Your task to perform on an android device: clear all cookies in the chrome app Image 0: 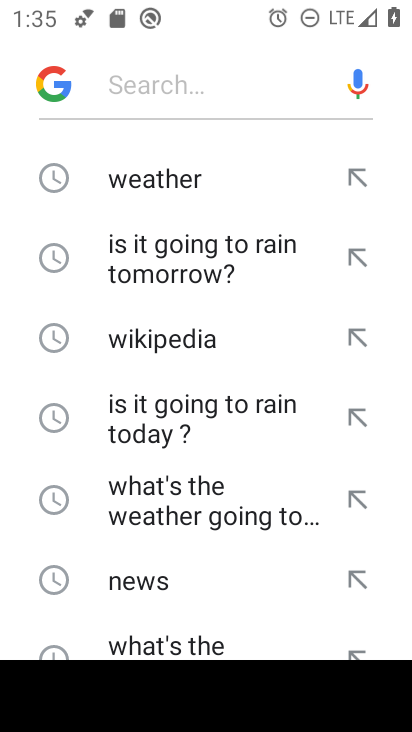
Step 0: press home button
Your task to perform on an android device: clear all cookies in the chrome app Image 1: 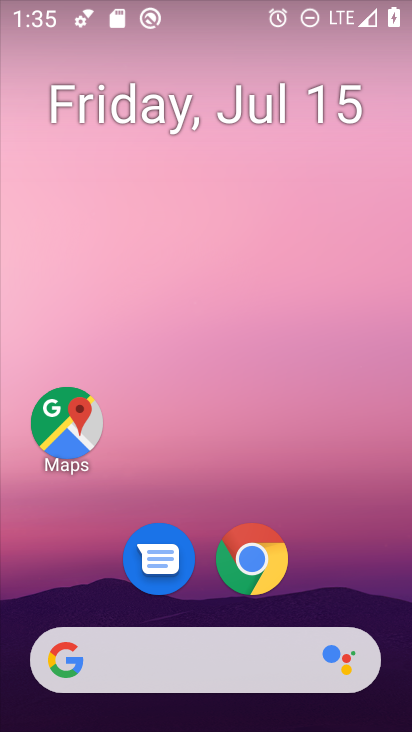
Step 1: drag from (350, 549) to (380, 98)
Your task to perform on an android device: clear all cookies in the chrome app Image 2: 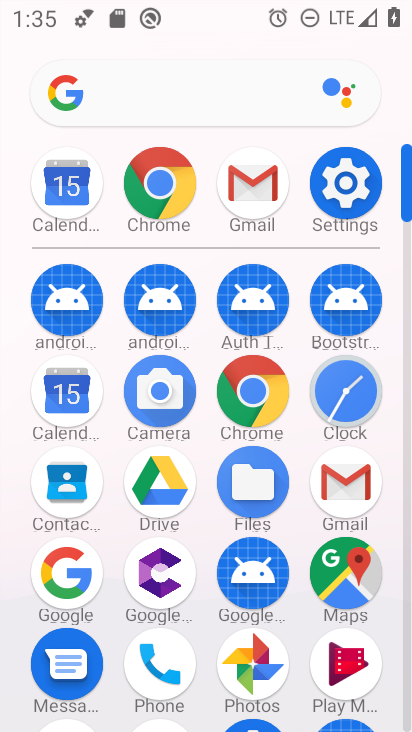
Step 2: click (265, 397)
Your task to perform on an android device: clear all cookies in the chrome app Image 3: 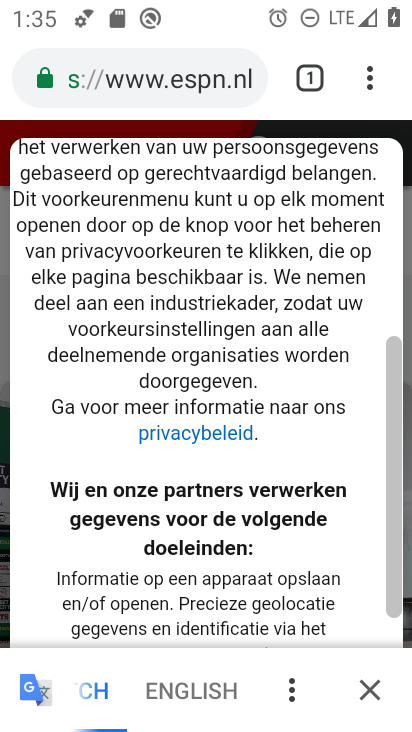
Step 3: click (370, 79)
Your task to perform on an android device: clear all cookies in the chrome app Image 4: 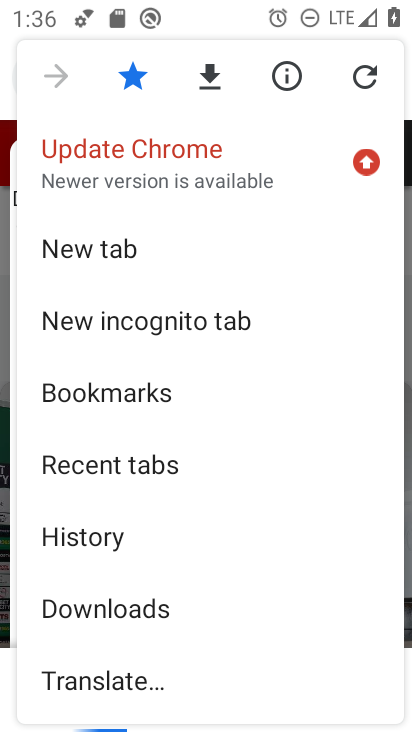
Step 4: drag from (309, 413) to (329, 330)
Your task to perform on an android device: clear all cookies in the chrome app Image 5: 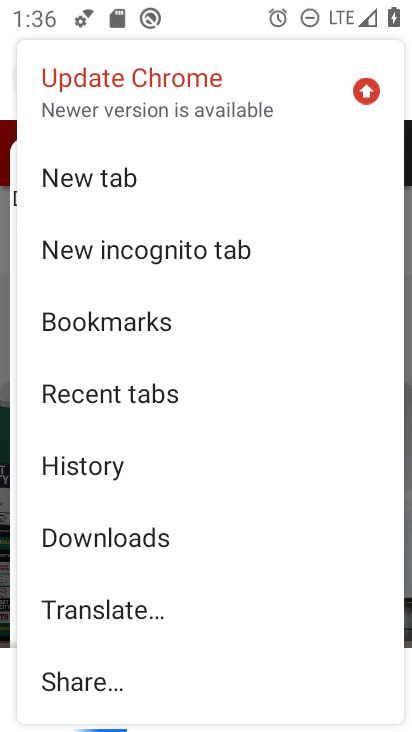
Step 5: drag from (314, 470) to (305, 387)
Your task to perform on an android device: clear all cookies in the chrome app Image 6: 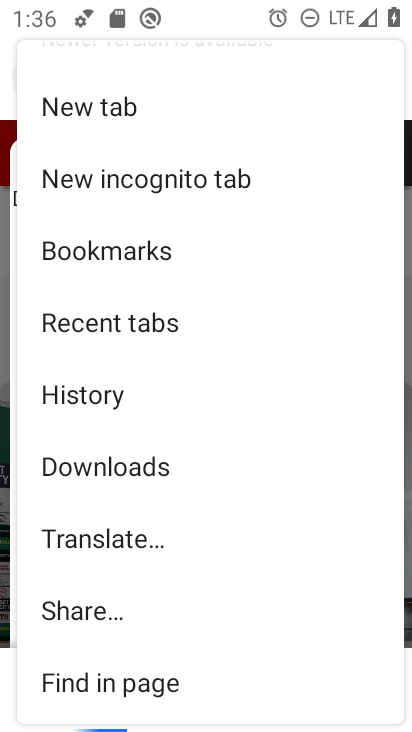
Step 6: drag from (296, 553) to (299, 336)
Your task to perform on an android device: clear all cookies in the chrome app Image 7: 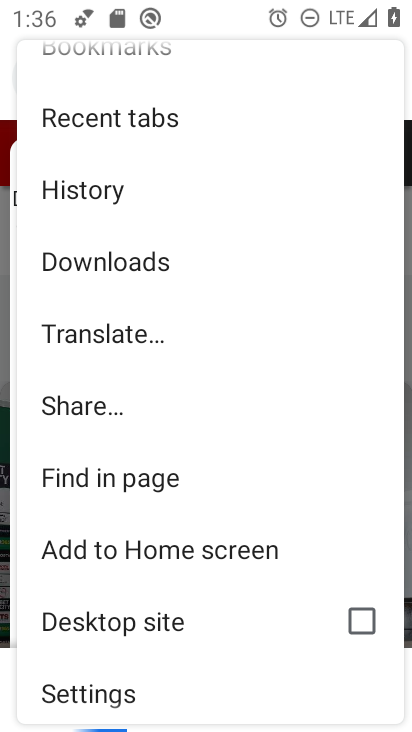
Step 7: drag from (284, 601) to (297, 413)
Your task to perform on an android device: clear all cookies in the chrome app Image 8: 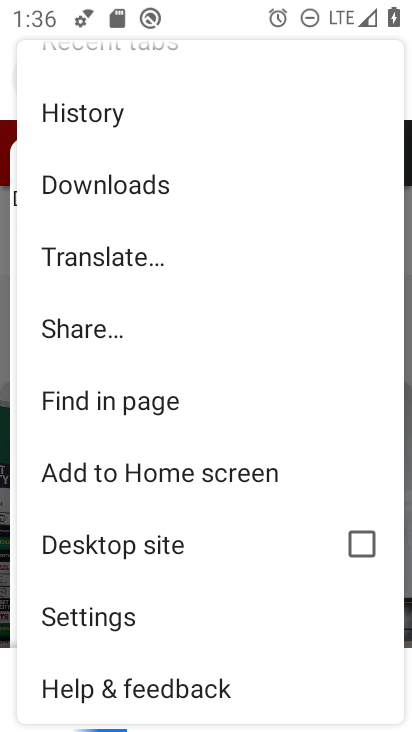
Step 8: click (207, 628)
Your task to perform on an android device: clear all cookies in the chrome app Image 9: 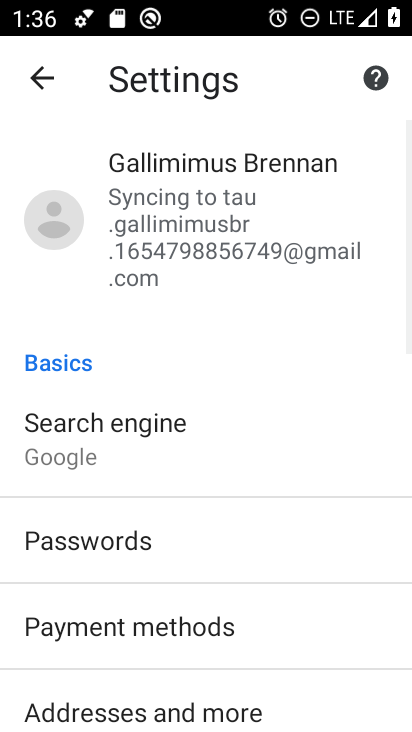
Step 9: drag from (309, 608) to (326, 410)
Your task to perform on an android device: clear all cookies in the chrome app Image 10: 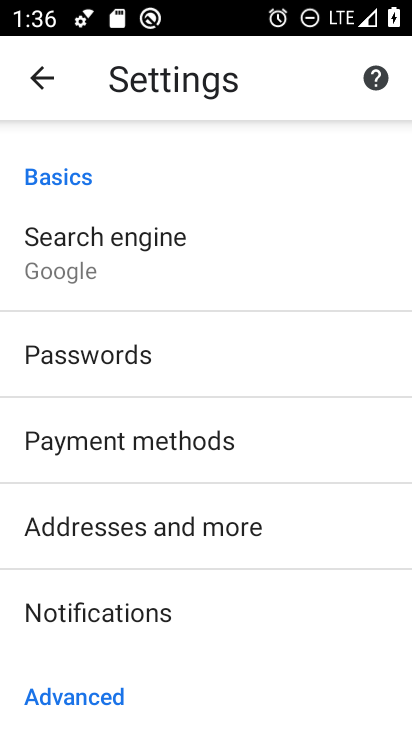
Step 10: drag from (331, 582) to (323, 451)
Your task to perform on an android device: clear all cookies in the chrome app Image 11: 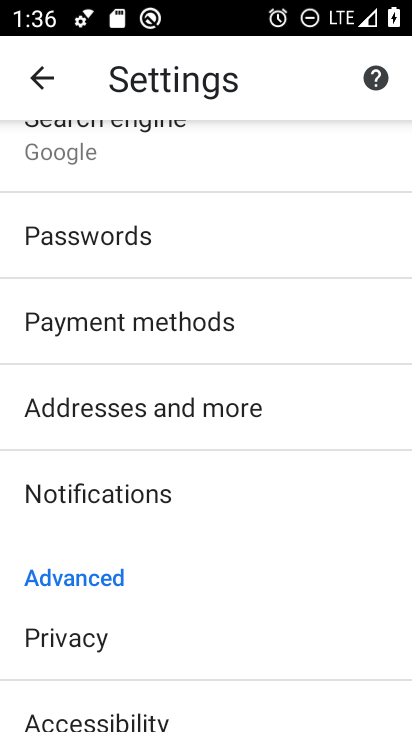
Step 11: drag from (305, 524) to (304, 408)
Your task to perform on an android device: clear all cookies in the chrome app Image 12: 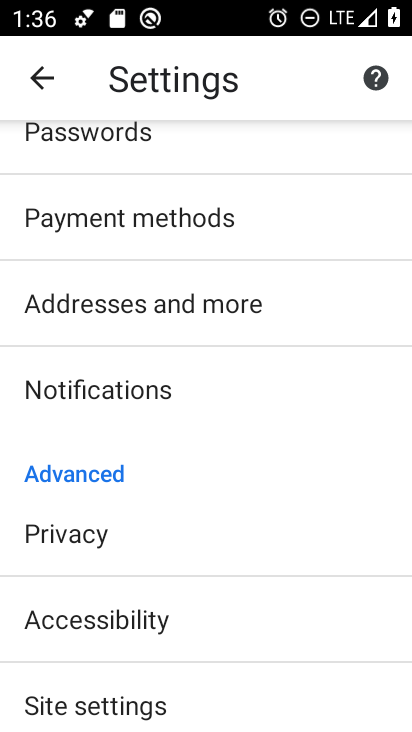
Step 12: drag from (321, 501) to (328, 417)
Your task to perform on an android device: clear all cookies in the chrome app Image 13: 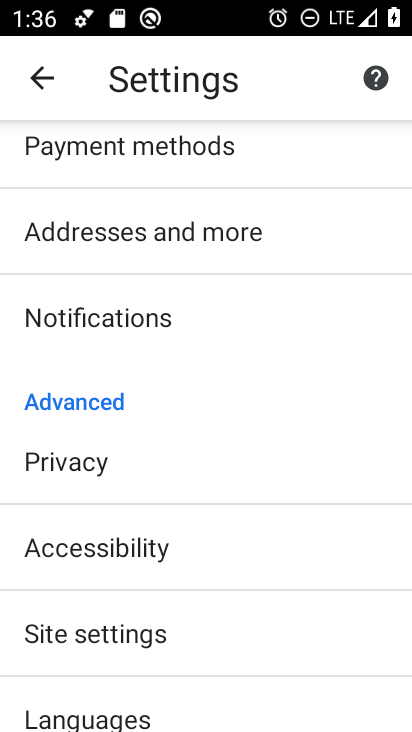
Step 13: drag from (319, 536) to (314, 412)
Your task to perform on an android device: clear all cookies in the chrome app Image 14: 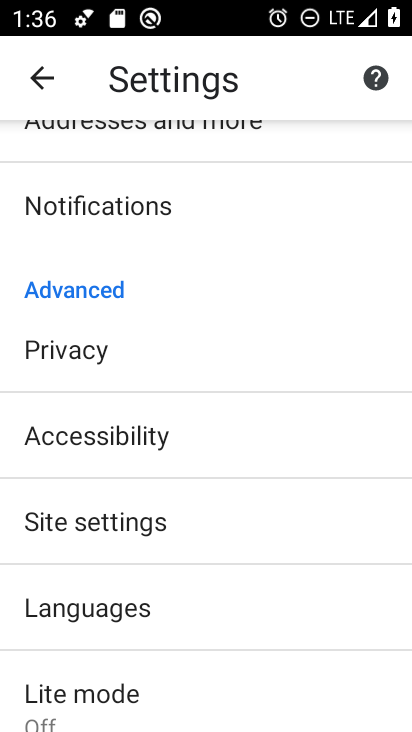
Step 14: click (220, 358)
Your task to perform on an android device: clear all cookies in the chrome app Image 15: 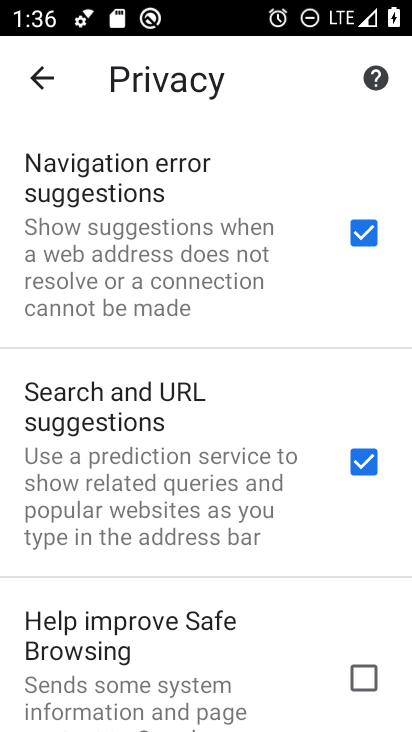
Step 15: drag from (262, 522) to (275, 430)
Your task to perform on an android device: clear all cookies in the chrome app Image 16: 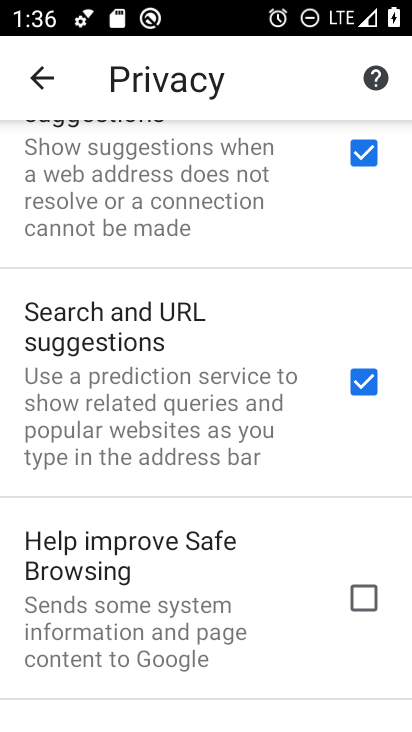
Step 16: drag from (287, 529) to (296, 442)
Your task to perform on an android device: clear all cookies in the chrome app Image 17: 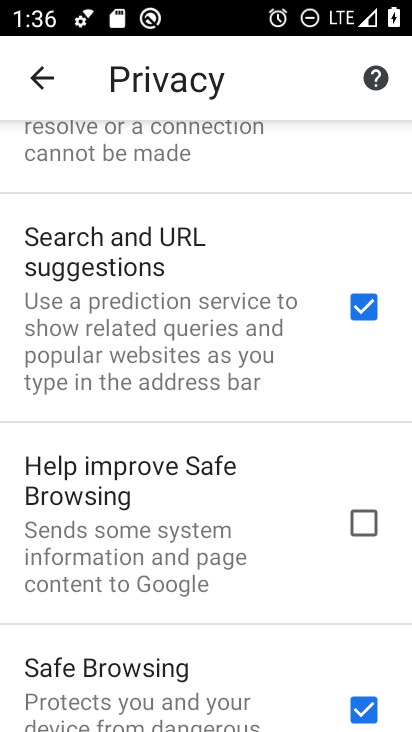
Step 17: drag from (285, 558) to (290, 452)
Your task to perform on an android device: clear all cookies in the chrome app Image 18: 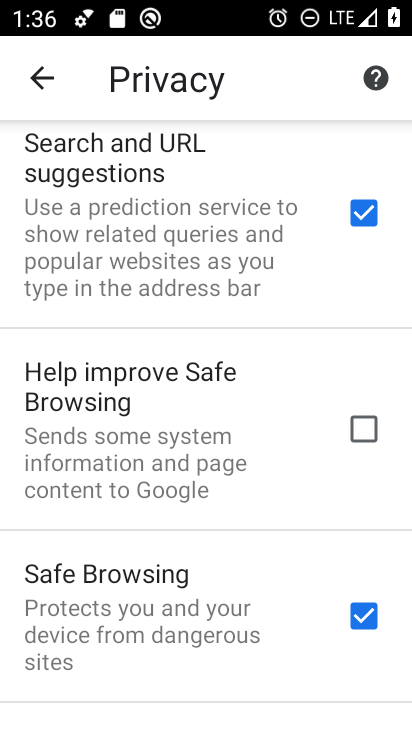
Step 18: drag from (289, 560) to (288, 454)
Your task to perform on an android device: clear all cookies in the chrome app Image 19: 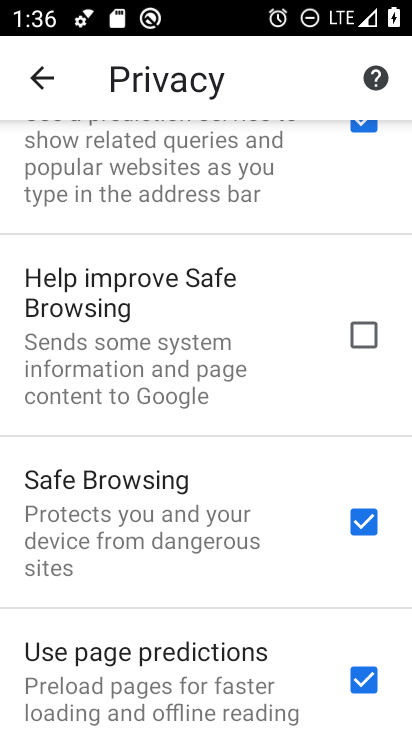
Step 19: drag from (289, 586) to (288, 464)
Your task to perform on an android device: clear all cookies in the chrome app Image 20: 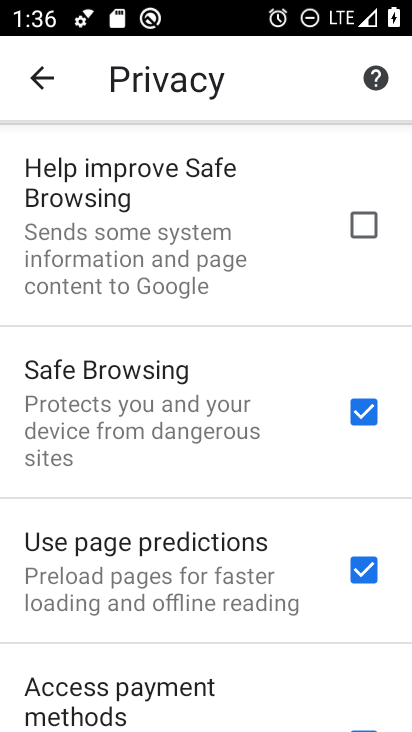
Step 20: drag from (303, 654) to (305, 514)
Your task to perform on an android device: clear all cookies in the chrome app Image 21: 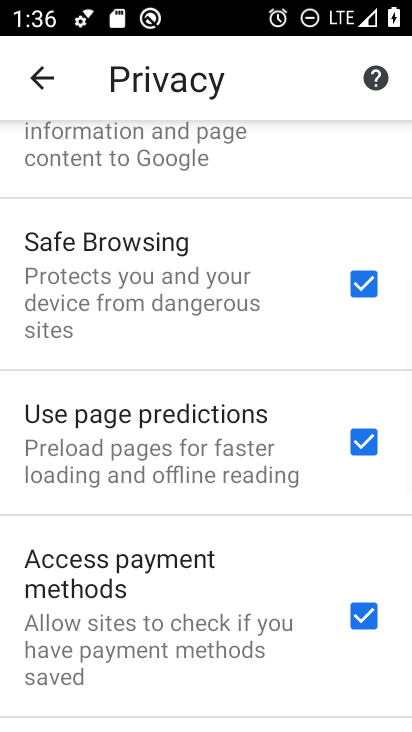
Step 21: drag from (296, 606) to (332, 399)
Your task to perform on an android device: clear all cookies in the chrome app Image 22: 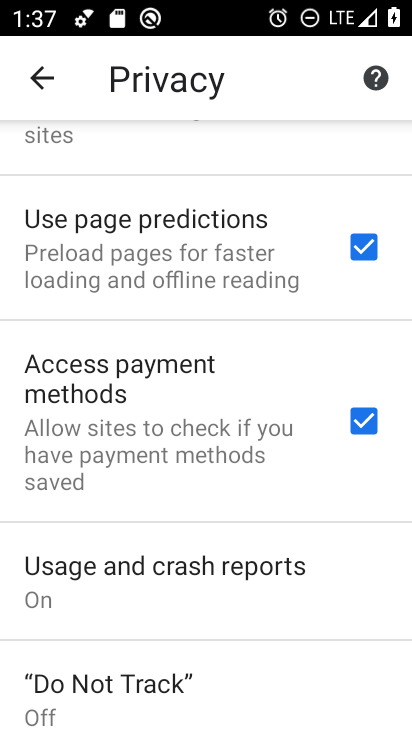
Step 22: drag from (336, 592) to (334, 457)
Your task to perform on an android device: clear all cookies in the chrome app Image 23: 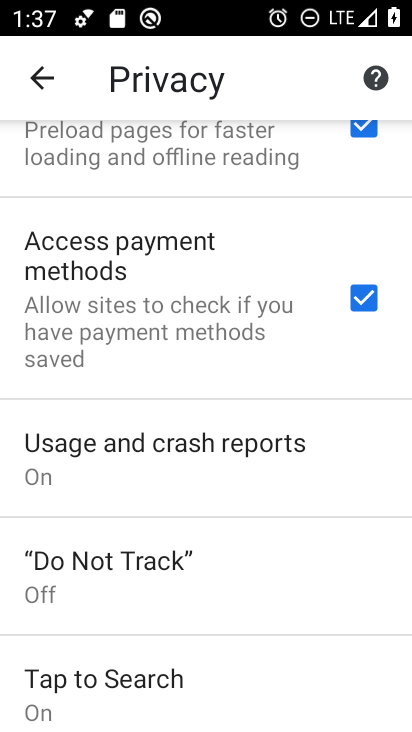
Step 23: drag from (319, 635) to (317, 438)
Your task to perform on an android device: clear all cookies in the chrome app Image 24: 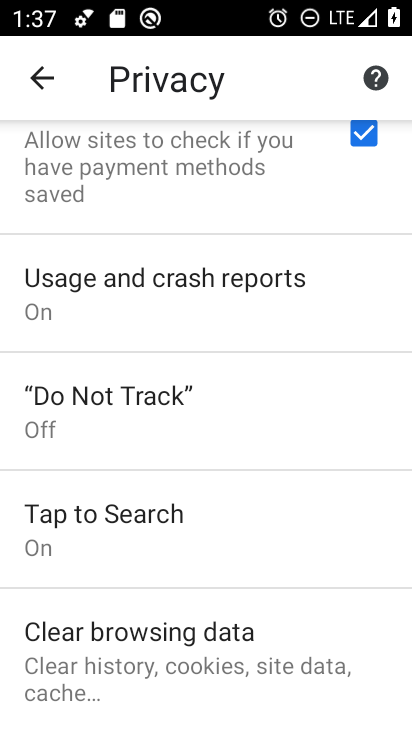
Step 24: click (338, 659)
Your task to perform on an android device: clear all cookies in the chrome app Image 25: 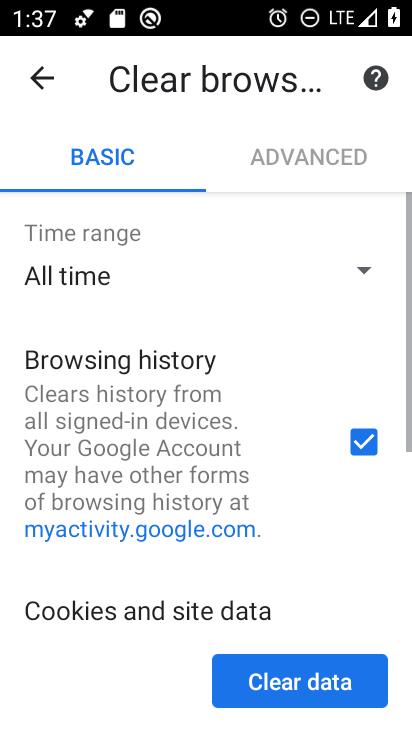
Step 25: click (300, 669)
Your task to perform on an android device: clear all cookies in the chrome app Image 26: 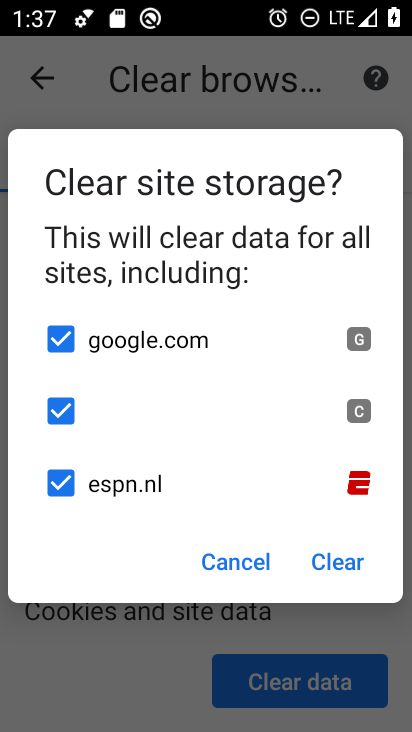
Step 26: click (319, 565)
Your task to perform on an android device: clear all cookies in the chrome app Image 27: 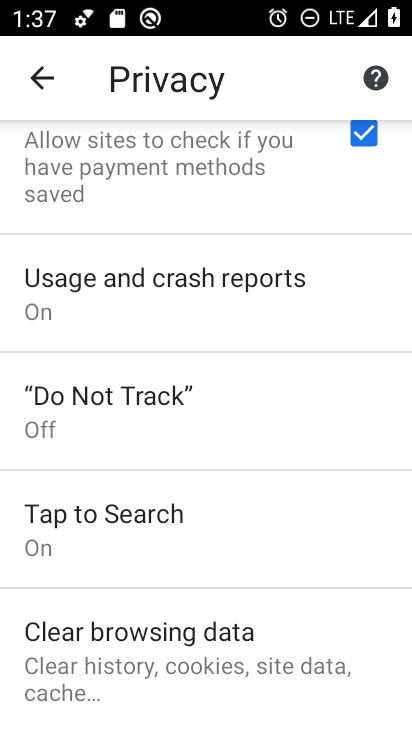
Step 27: task complete